Your task to perform on an android device: set the timer Image 0: 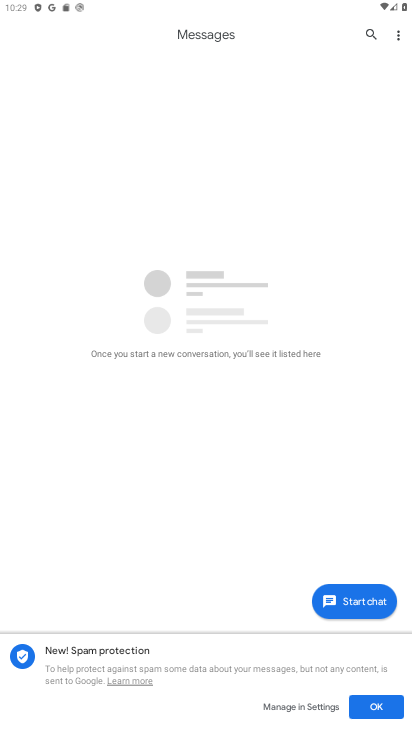
Step 0: press back button
Your task to perform on an android device: set the timer Image 1: 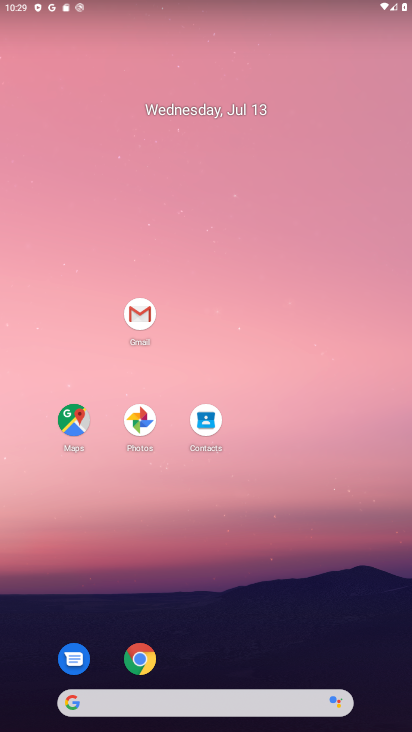
Step 1: drag from (226, 567) to (251, 73)
Your task to perform on an android device: set the timer Image 2: 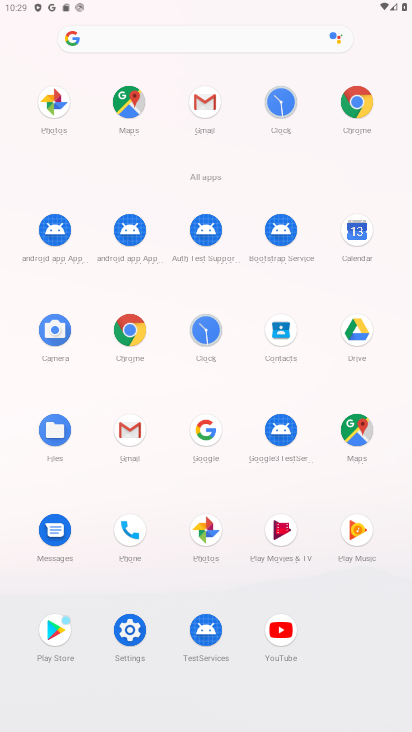
Step 2: drag from (217, 328) to (213, 290)
Your task to perform on an android device: set the timer Image 3: 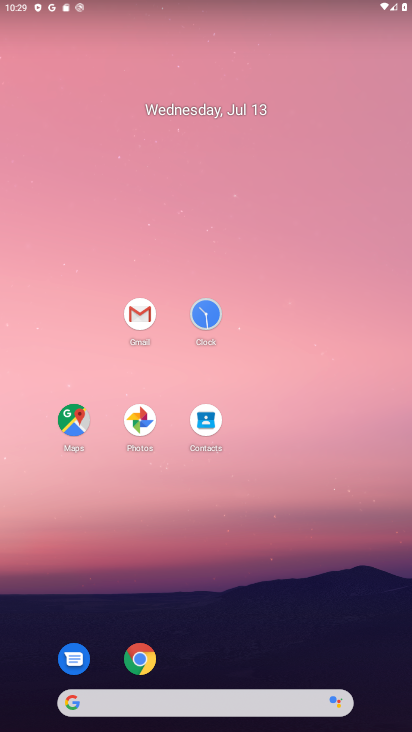
Step 3: click (218, 308)
Your task to perform on an android device: set the timer Image 4: 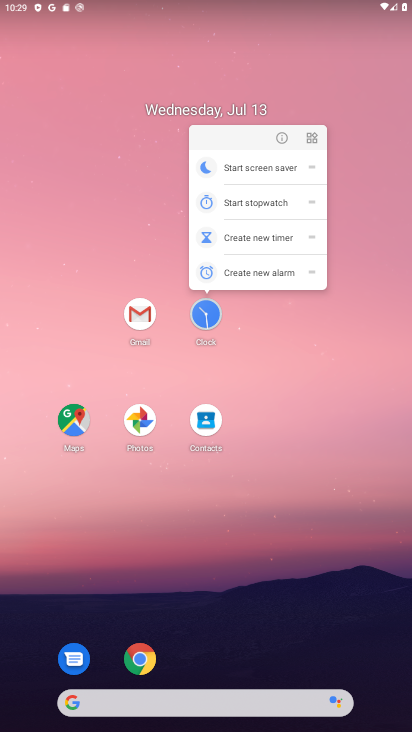
Step 4: click (269, 277)
Your task to perform on an android device: set the timer Image 5: 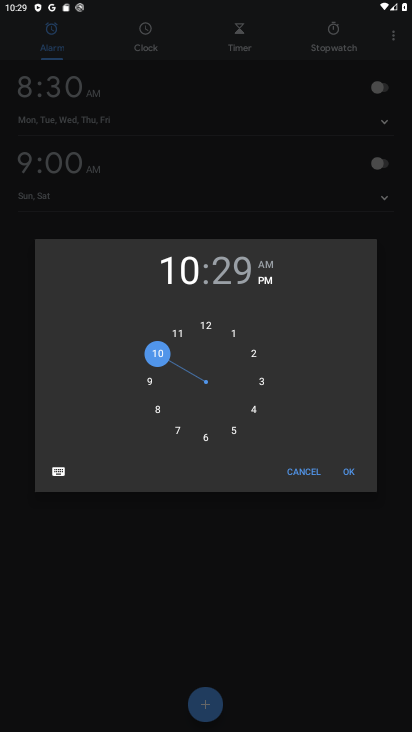
Step 5: click (342, 463)
Your task to perform on an android device: set the timer Image 6: 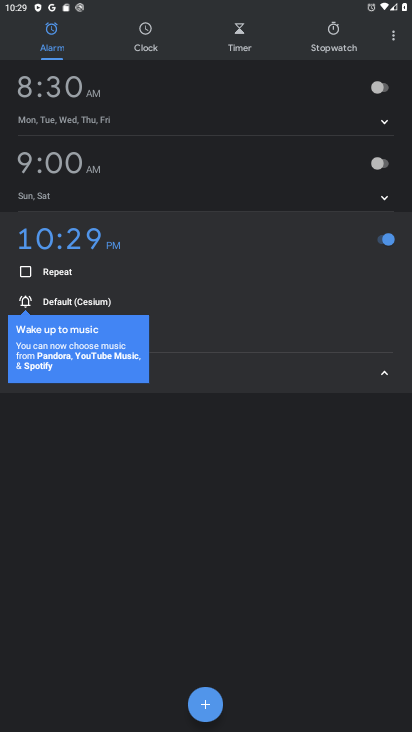
Step 6: task complete